Your task to perform on an android device: move an email to a new category in the gmail app Image 0: 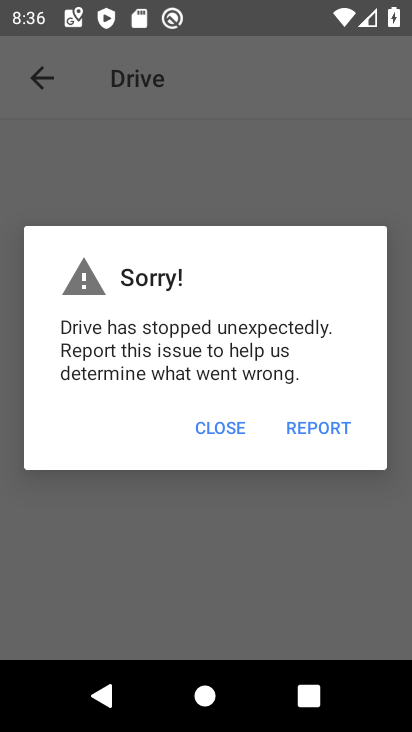
Step 0: press home button
Your task to perform on an android device: move an email to a new category in the gmail app Image 1: 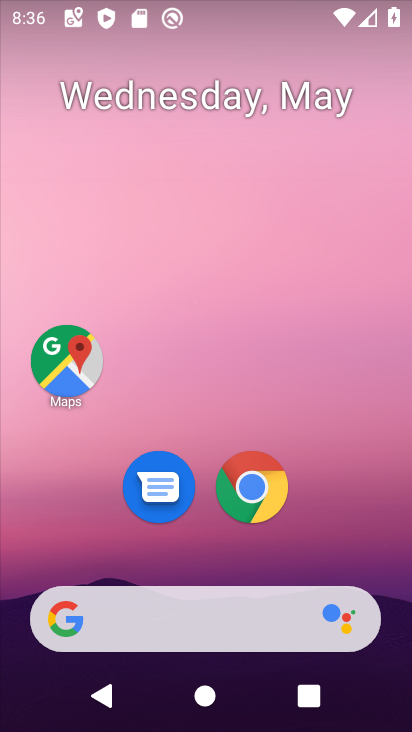
Step 1: drag from (207, 553) to (223, 57)
Your task to perform on an android device: move an email to a new category in the gmail app Image 2: 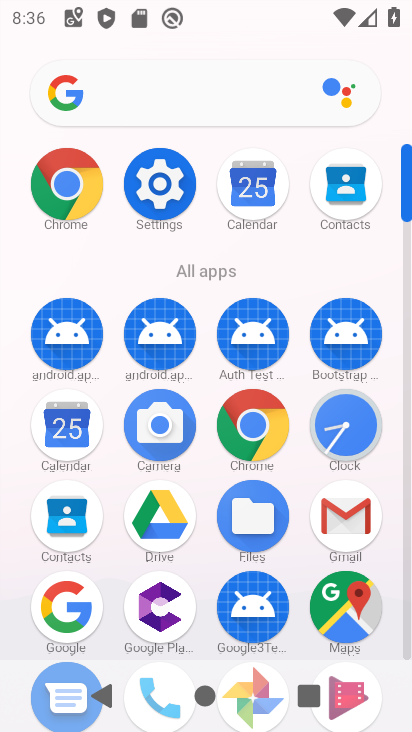
Step 2: click (337, 521)
Your task to perform on an android device: move an email to a new category in the gmail app Image 3: 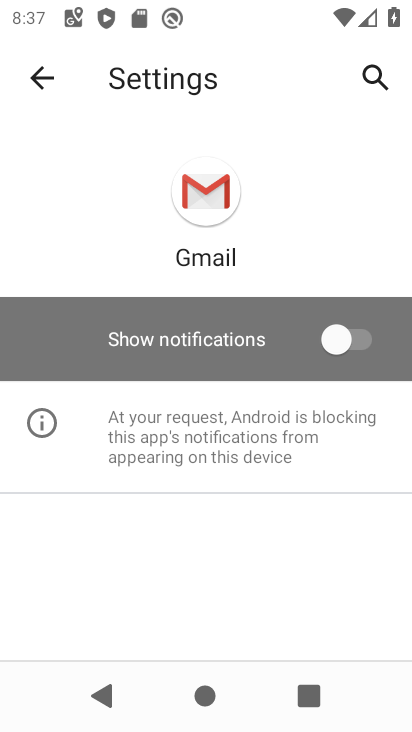
Step 3: click (34, 72)
Your task to perform on an android device: move an email to a new category in the gmail app Image 4: 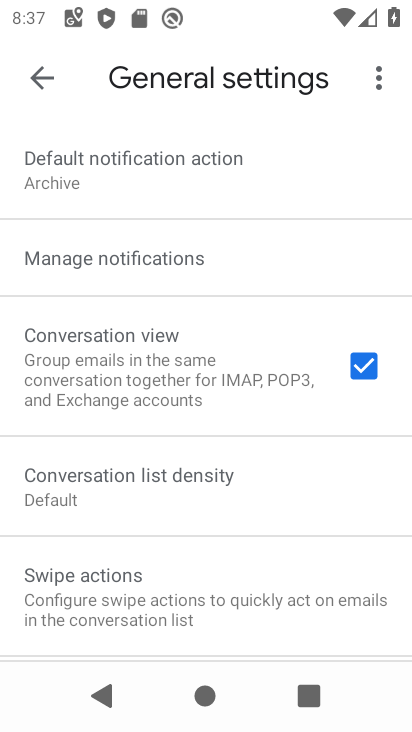
Step 4: click (34, 73)
Your task to perform on an android device: move an email to a new category in the gmail app Image 5: 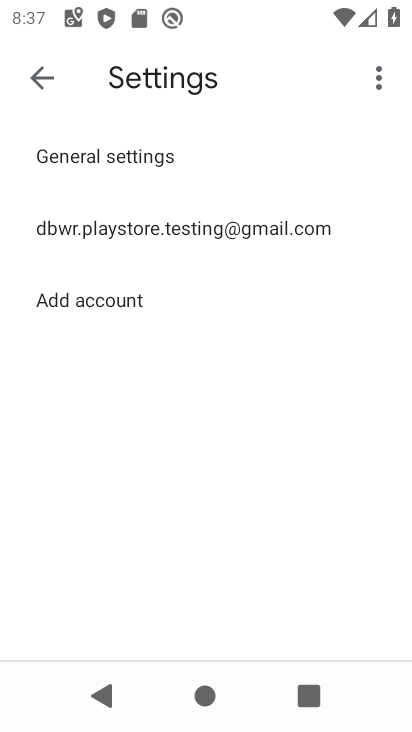
Step 5: click (34, 73)
Your task to perform on an android device: move an email to a new category in the gmail app Image 6: 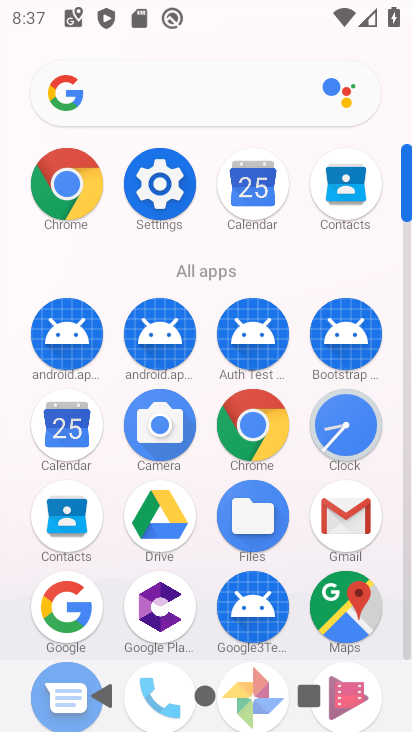
Step 6: click (341, 503)
Your task to perform on an android device: move an email to a new category in the gmail app Image 7: 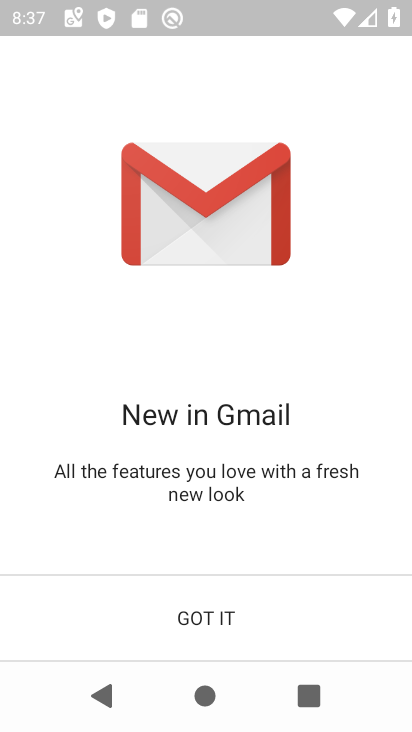
Step 7: click (198, 626)
Your task to perform on an android device: move an email to a new category in the gmail app Image 8: 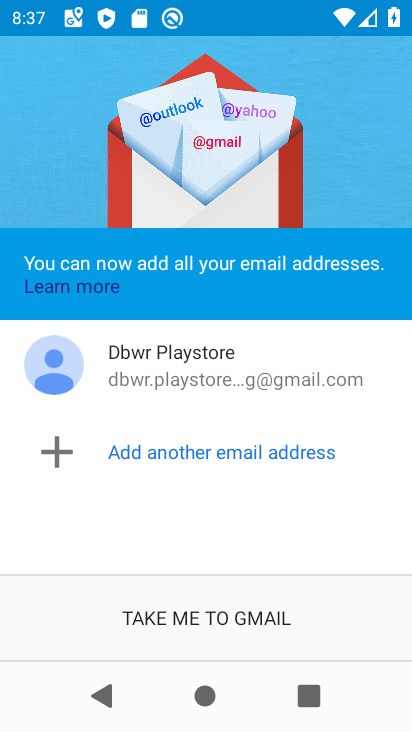
Step 8: click (198, 626)
Your task to perform on an android device: move an email to a new category in the gmail app Image 9: 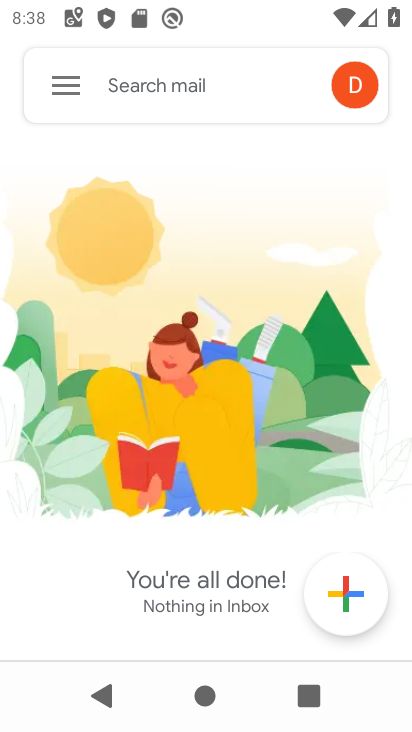
Step 9: task complete